Your task to perform on an android device: choose inbox layout in the gmail app Image 0: 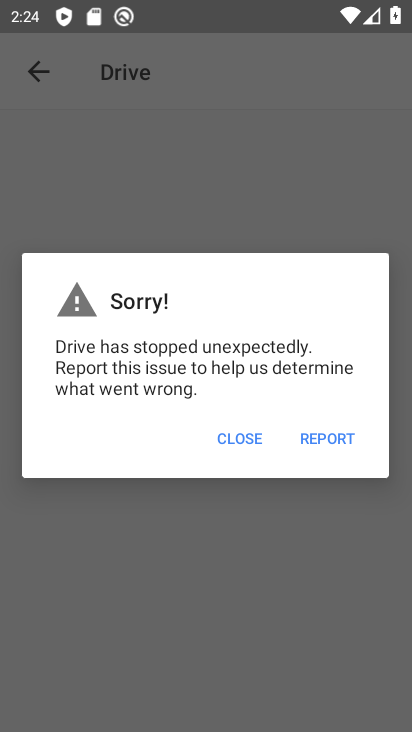
Step 0: press home button
Your task to perform on an android device: choose inbox layout in the gmail app Image 1: 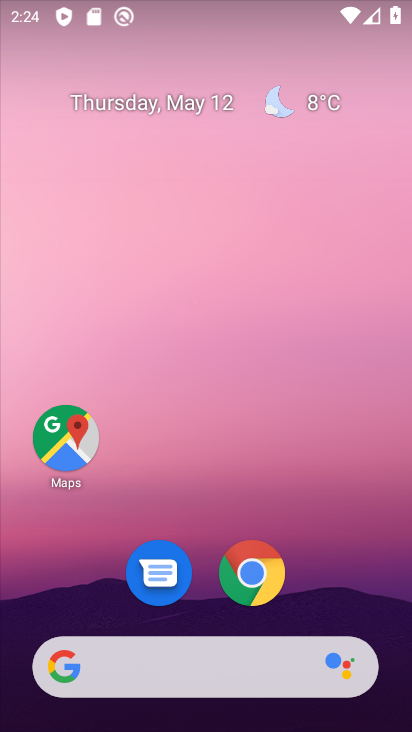
Step 1: drag from (319, 554) to (382, 33)
Your task to perform on an android device: choose inbox layout in the gmail app Image 2: 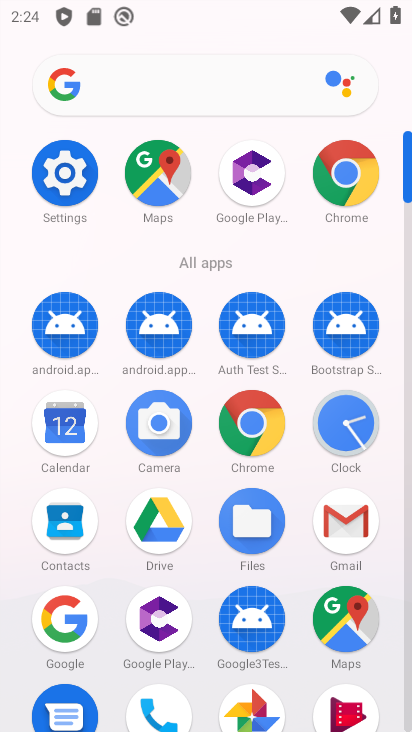
Step 2: click (352, 511)
Your task to perform on an android device: choose inbox layout in the gmail app Image 3: 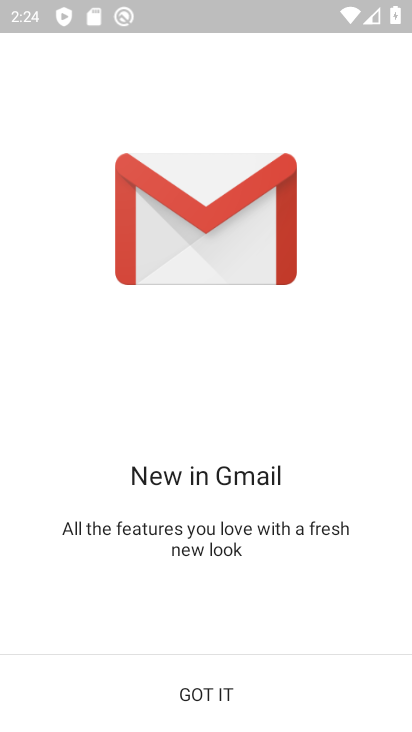
Step 3: click (302, 704)
Your task to perform on an android device: choose inbox layout in the gmail app Image 4: 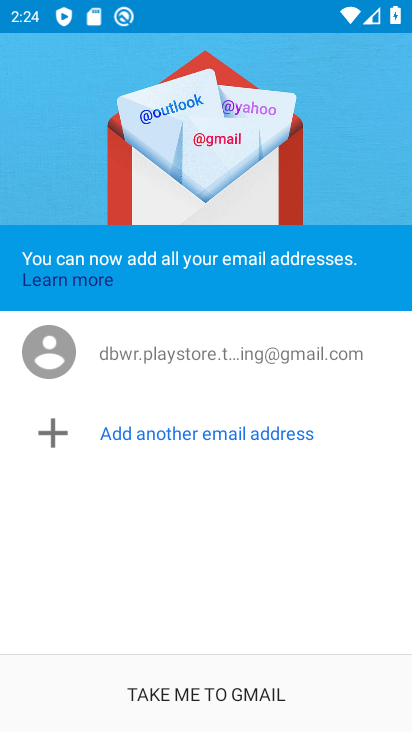
Step 4: click (302, 704)
Your task to perform on an android device: choose inbox layout in the gmail app Image 5: 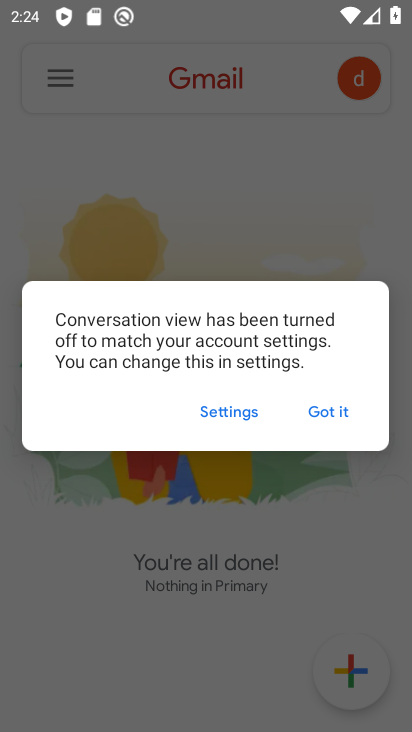
Step 5: click (345, 420)
Your task to perform on an android device: choose inbox layout in the gmail app Image 6: 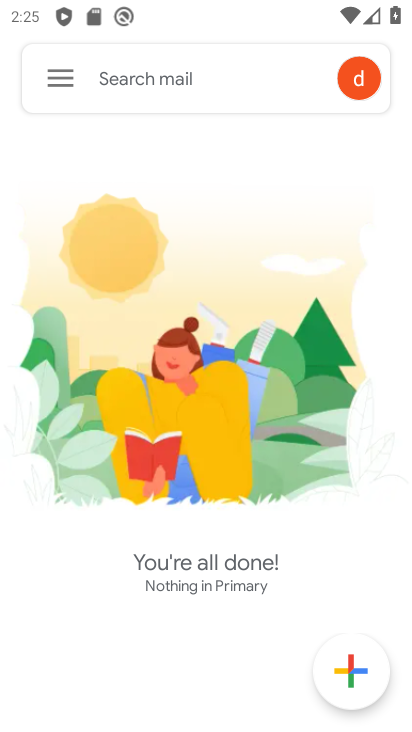
Step 6: click (71, 80)
Your task to perform on an android device: choose inbox layout in the gmail app Image 7: 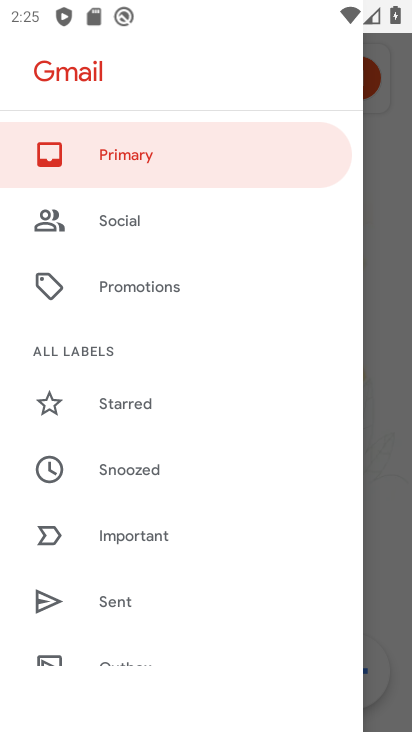
Step 7: drag from (174, 615) to (181, 124)
Your task to perform on an android device: choose inbox layout in the gmail app Image 8: 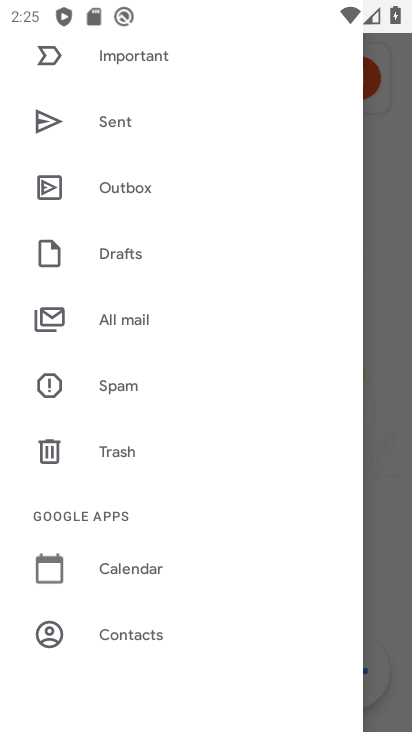
Step 8: drag from (183, 644) to (180, 194)
Your task to perform on an android device: choose inbox layout in the gmail app Image 9: 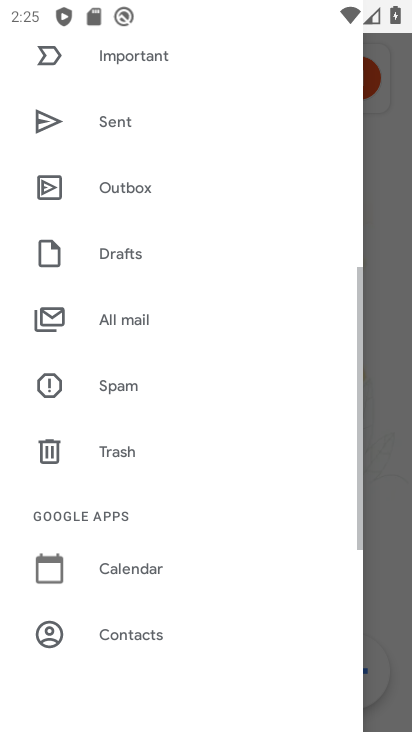
Step 9: drag from (232, 574) to (222, 189)
Your task to perform on an android device: choose inbox layout in the gmail app Image 10: 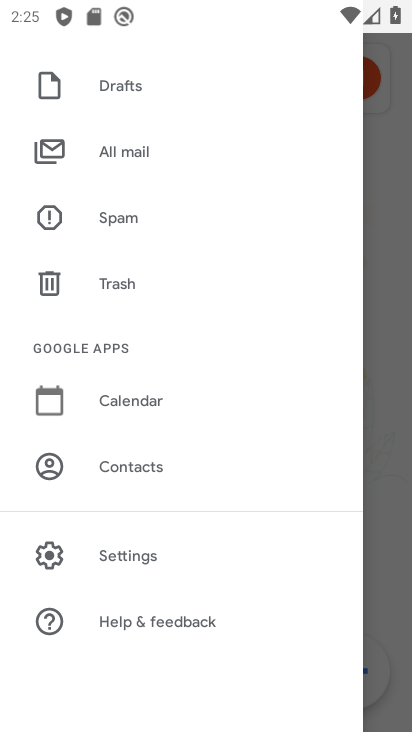
Step 10: click (121, 550)
Your task to perform on an android device: choose inbox layout in the gmail app Image 11: 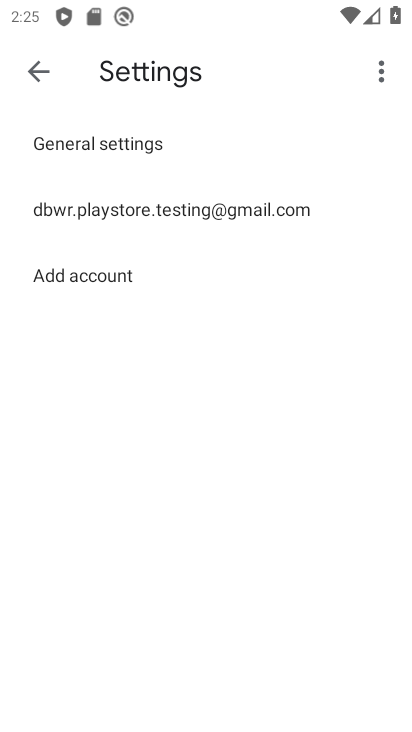
Step 11: click (166, 202)
Your task to perform on an android device: choose inbox layout in the gmail app Image 12: 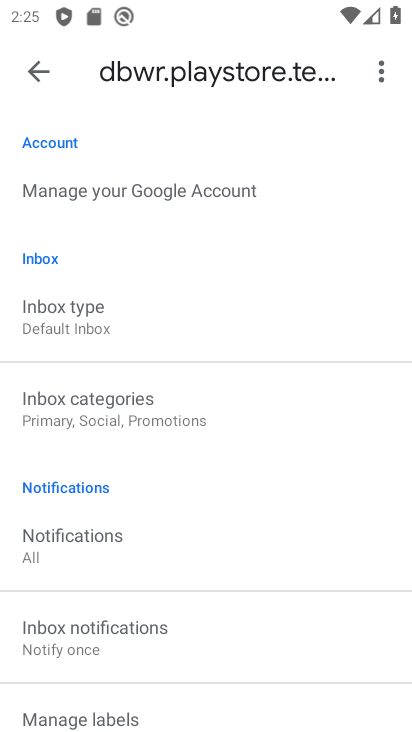
Step 12: click (57, 320)
Your task to perform on an android device: choose inbox layout in the gmail app Image 13: 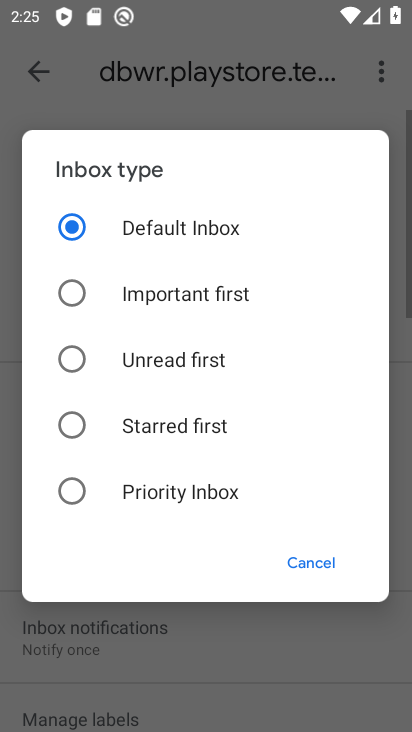
Step 13: click (182, 355)
Your task to perform on an android device: choose inbox layout in the gmail app Image 14: 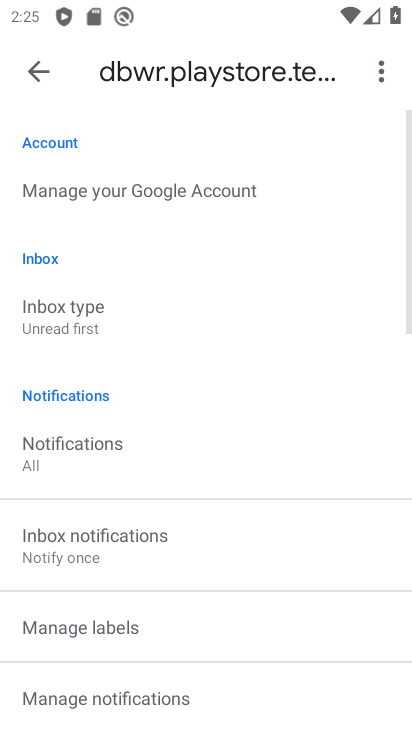
Step 14: task complete